Your task to perform on an android device: change the clock style Image 0: 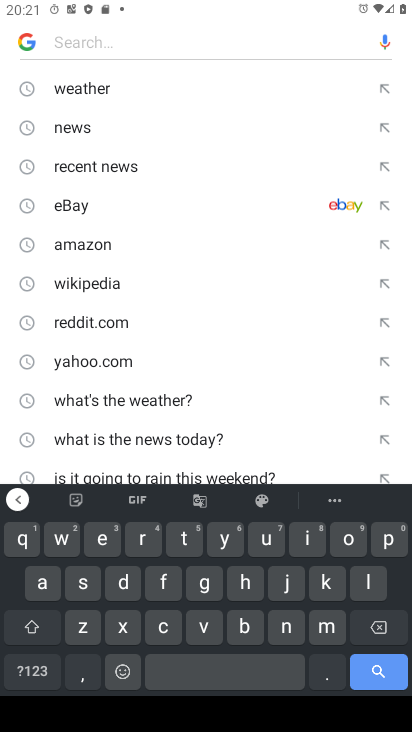
Step 0: press home button
Your task to perform on an android device: change the clock style Image 1: 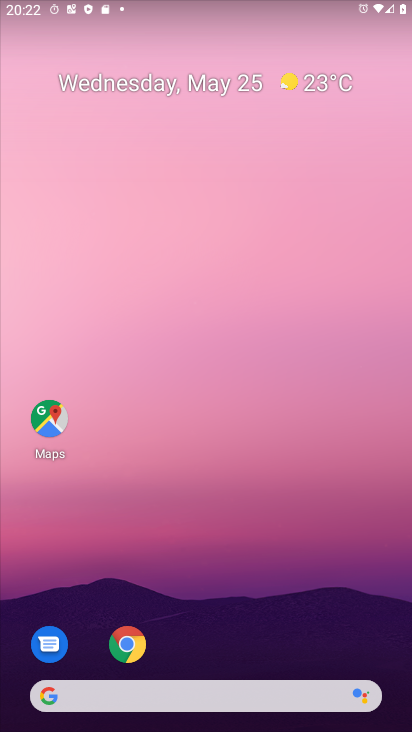
Step 1: drag from (232, 709) to (301, 149)
Your task to perform on an android device: change the clock style Image 2: 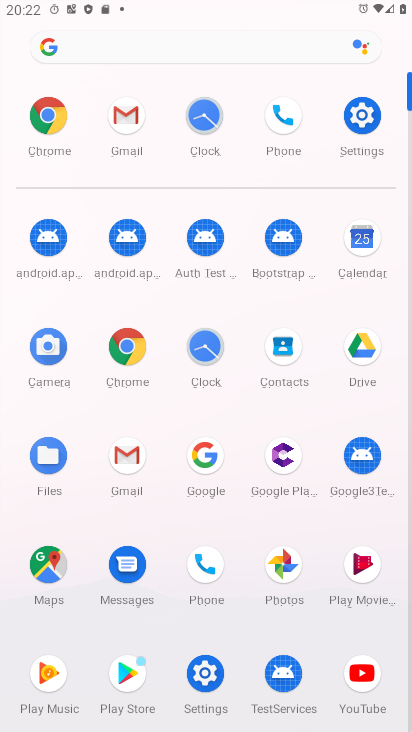
Step 2: click (205, 352)
Your task to perform on an android device: change the clock style Image 3: 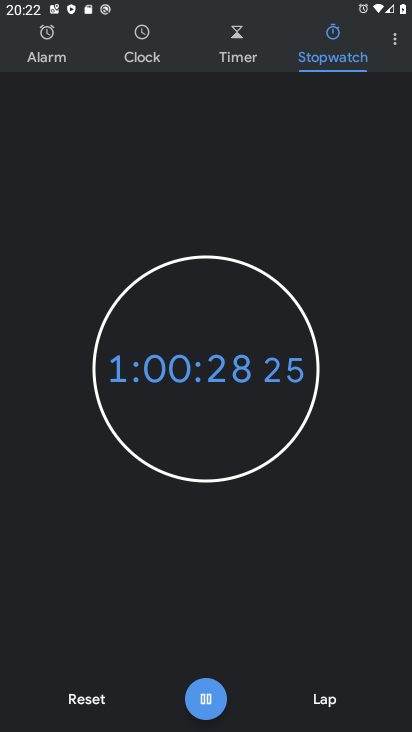
Step 3: click (398, 43)
Your task to perform on an android device: change the clock style Image 4: 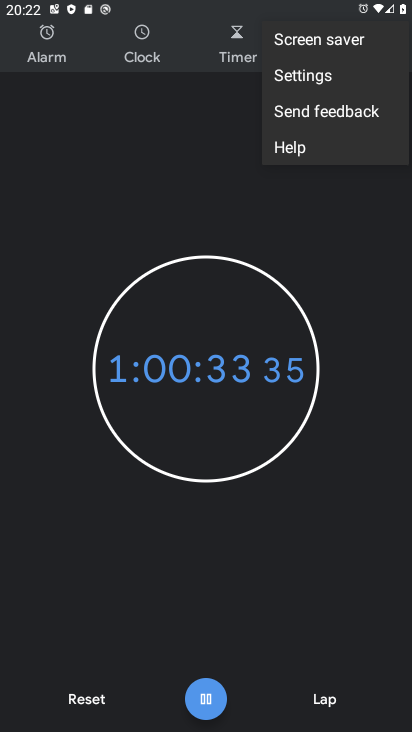
Step 4: click (305, 78)
Your task to perform on an android device: change the clock style Image 5: 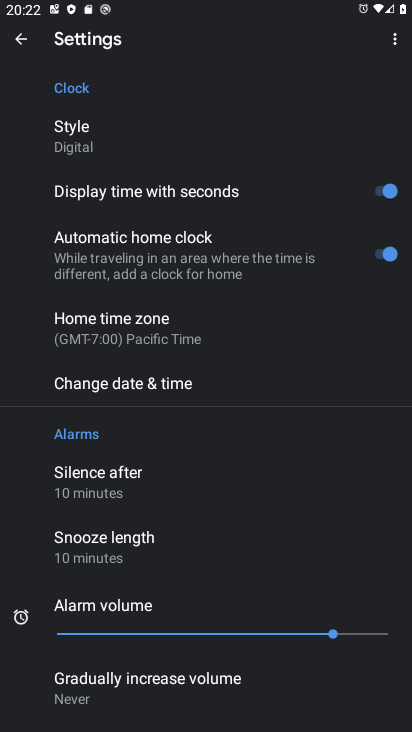
Step 5: click (164, 157)
Your task to perform on an android device: change the clock style Image 6: 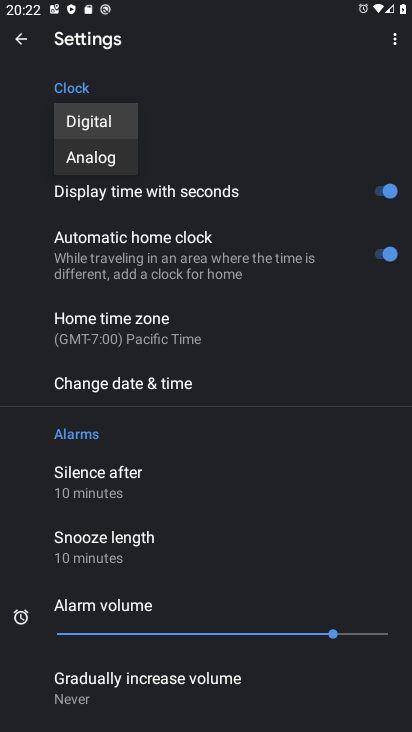
Step 6: click (100, 163)
Your task to perform on an android device: change the clock style Image 7: 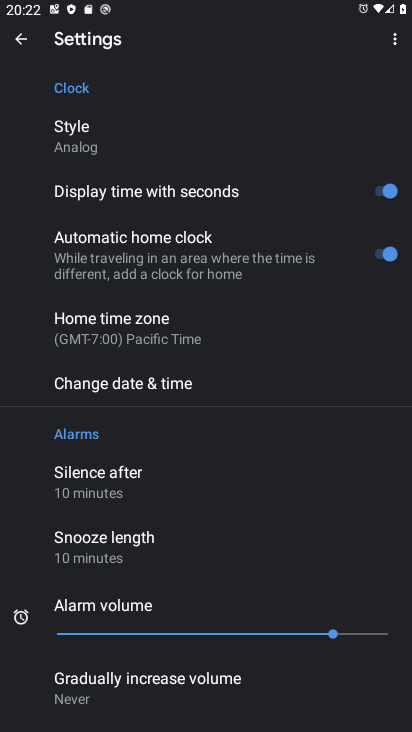
Step 7: task complete